Your task to perform on an android device: Go to Yahoo.com Image 0: 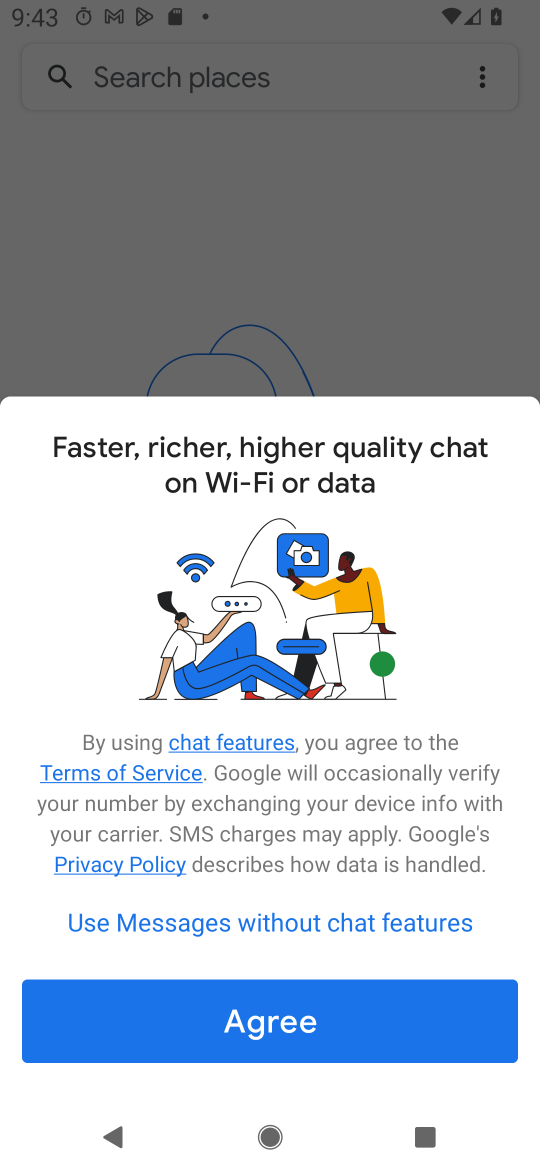
Step 0: press home button
Your task to perform on an android device: Go to Yahoo.com Image 1: 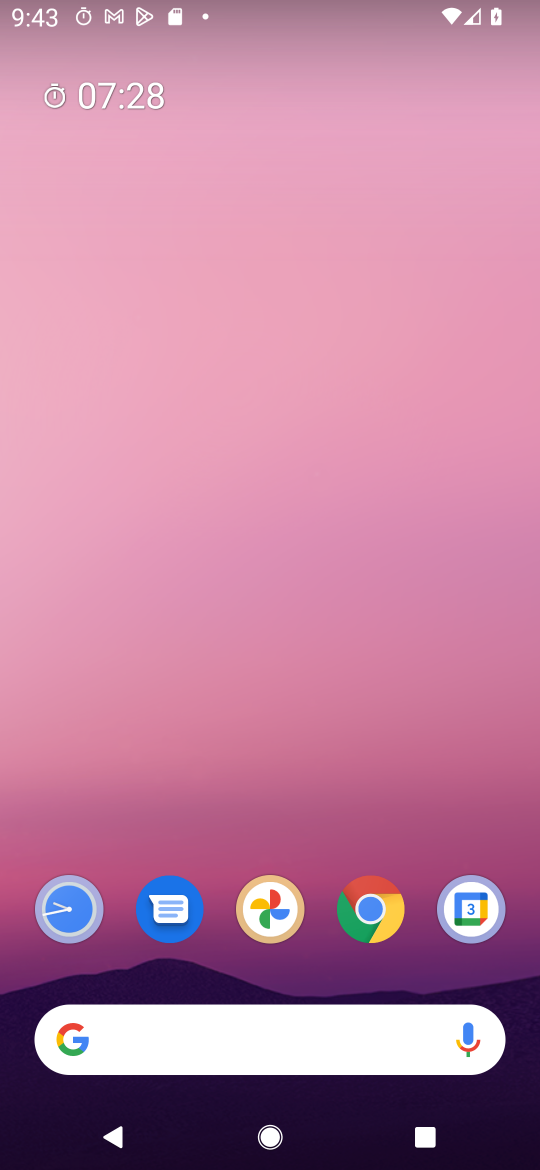
Step 1: drag from (397, 698) to (402, 248)
Your task to perform on an android device: Go to Yahoo.com Image 2: 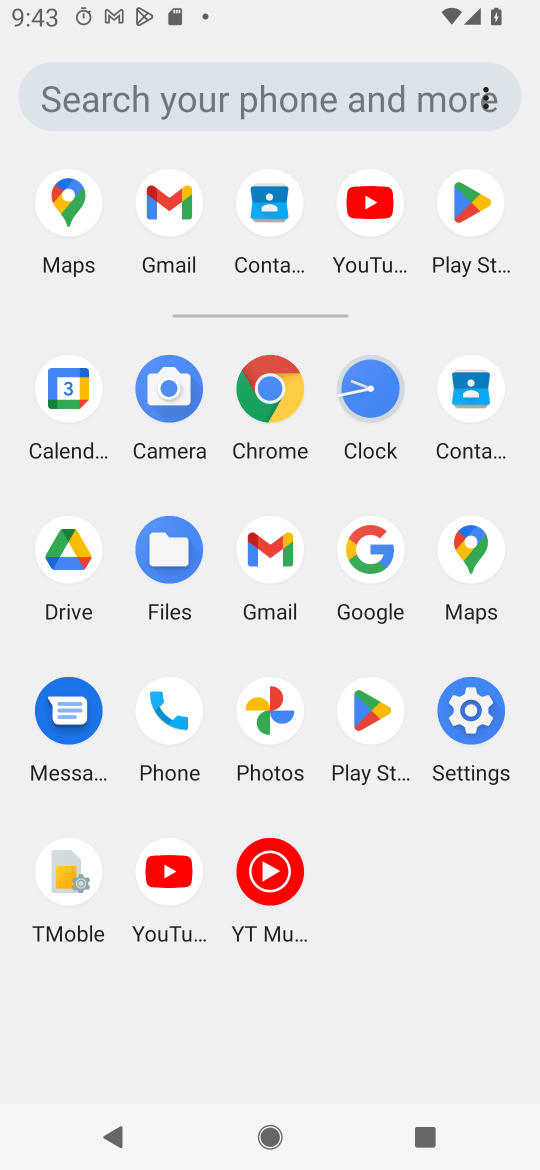
Step 2: click (256, 407)
Your task to perform on an android device: Go to Yahoo.com Image 3: 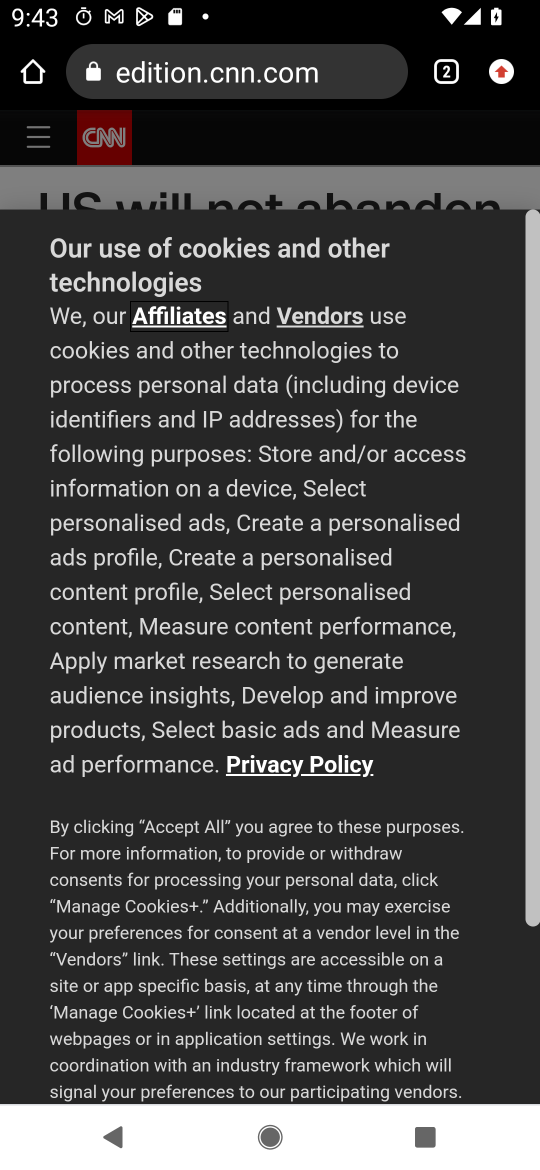
Step 3: click (334, 81)
Your task to perform on an android device: Go to Yahoo.com Image 4: 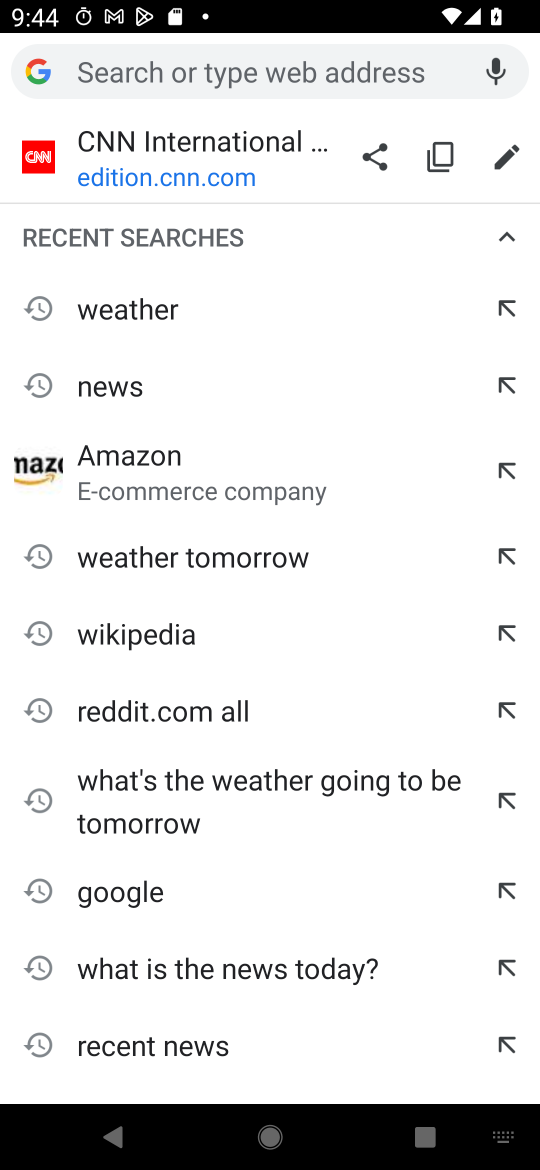
Step 4: type "yahoo.com"
Your task to perform on an android device: Go to Yahoo.com Image 5: 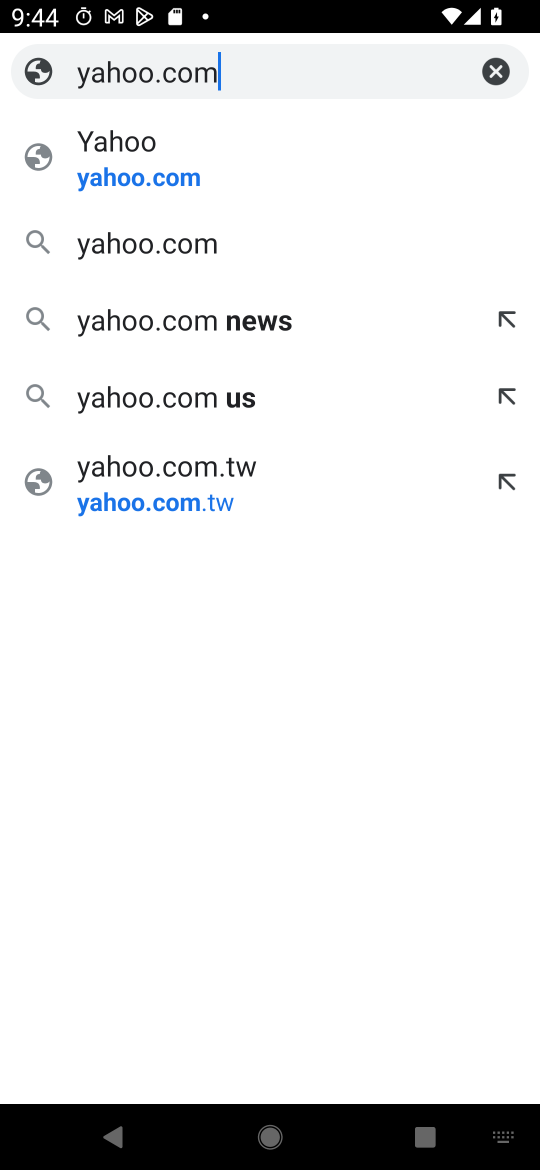
Step 5: click (192, 154)
Your task to perform on an android device: Go to Yahoo.com Image 6: 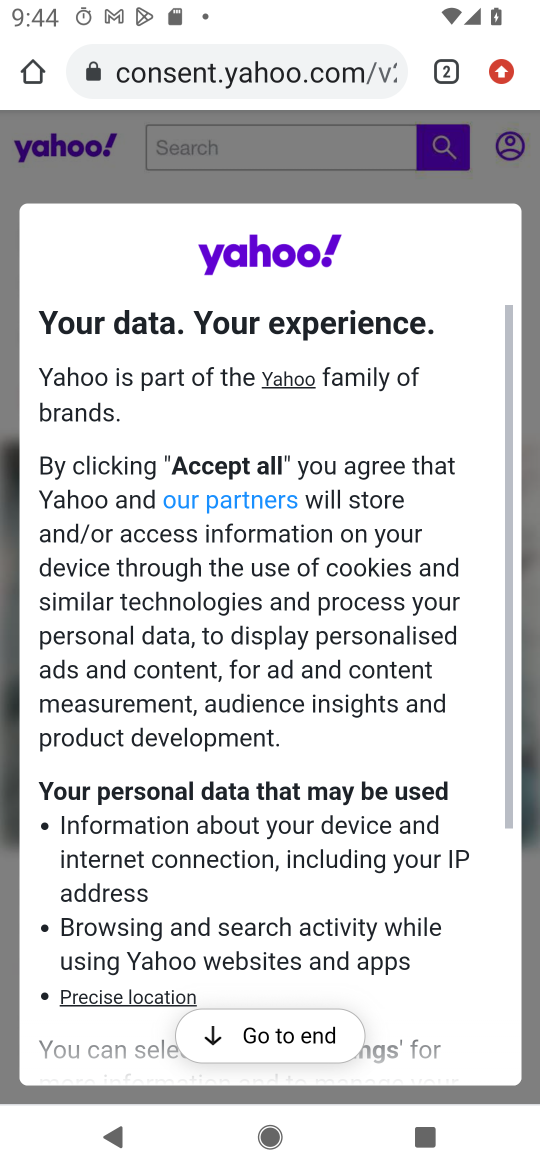
Step 6: task complete